Your task to perform on an android device: see creations saved in the google photos Image 0: 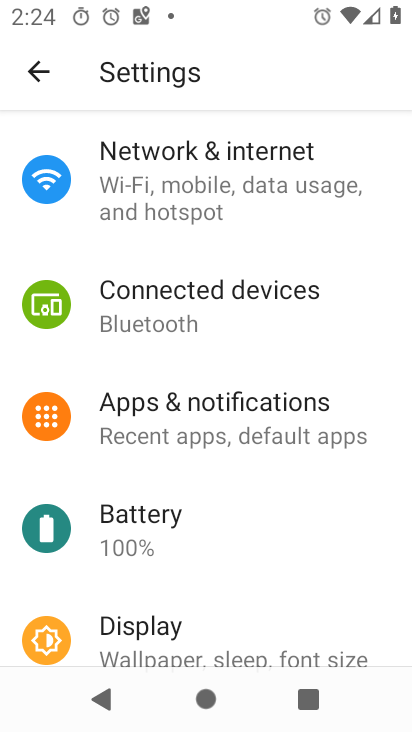
Step 0: press home button
Your task to perform on an android device: see creations saved in the google photos Image 1: 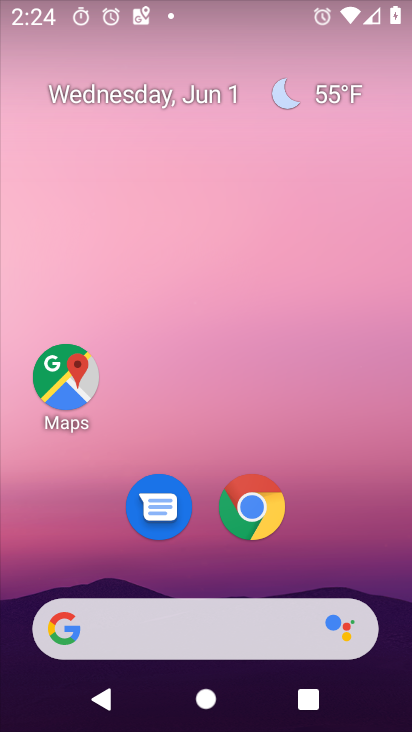
Step 1: drag from (336, 590) to (375, 4)
Your task to perform on an android device: see creations saved in the google photos Image 2: 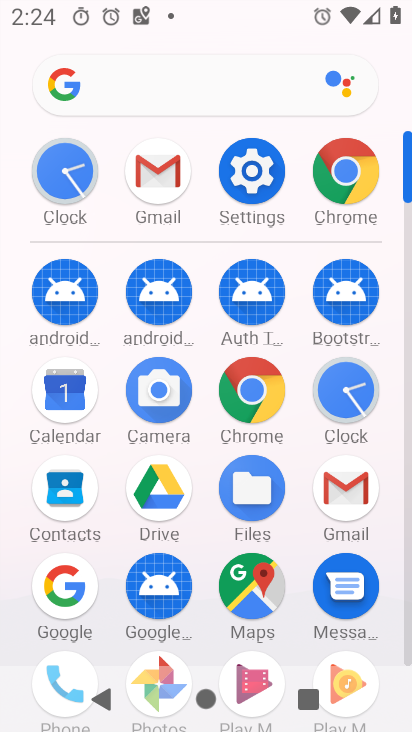
Step 2: click (405, 548)
Your task to perform on an android device: see creations saved in the google photos Image 3: 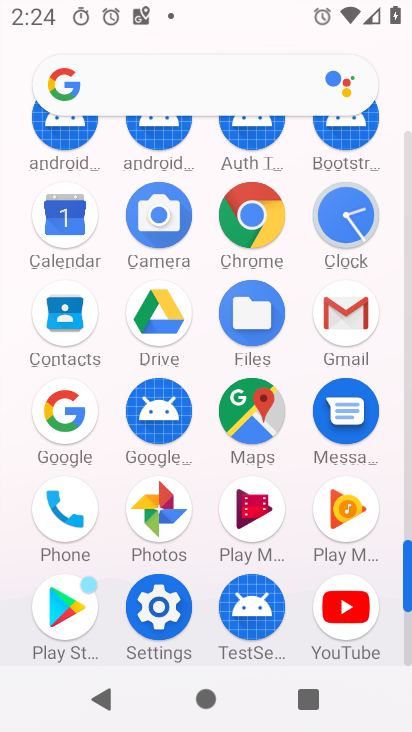
Step 3: click (155, 515)
Your task to perform on an android device: see creations saved in the google photos Image 4: 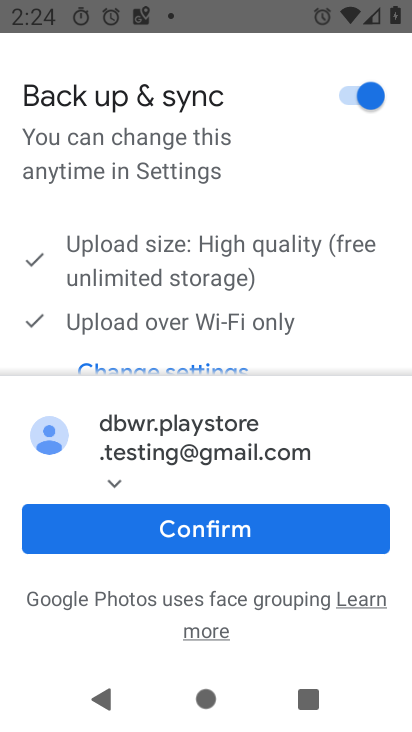
Step 4: click (187, 525)
Your task to perform on an android device: see creations saved in the google photos Image 5: 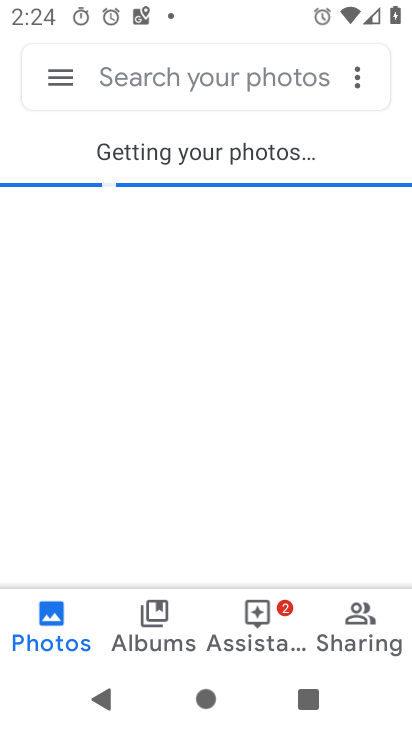
Step 5: click (139, 75)
Your task to perform on an android device: see creations saved in the google photos Image 6: 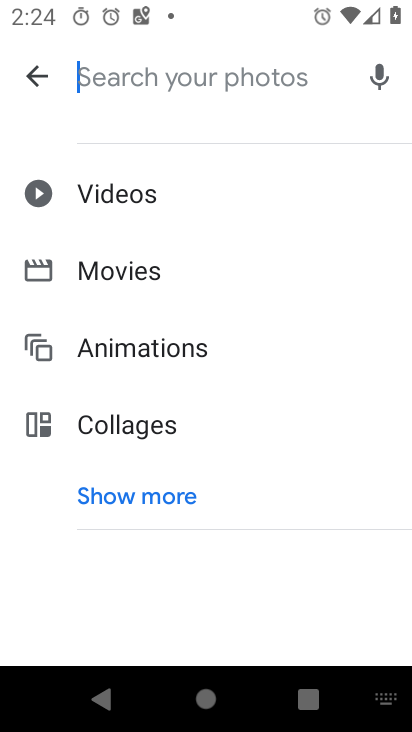
Step 6: click (138, 501)
Your task to perform on an android device: see creations saved in the google photos Image 7: 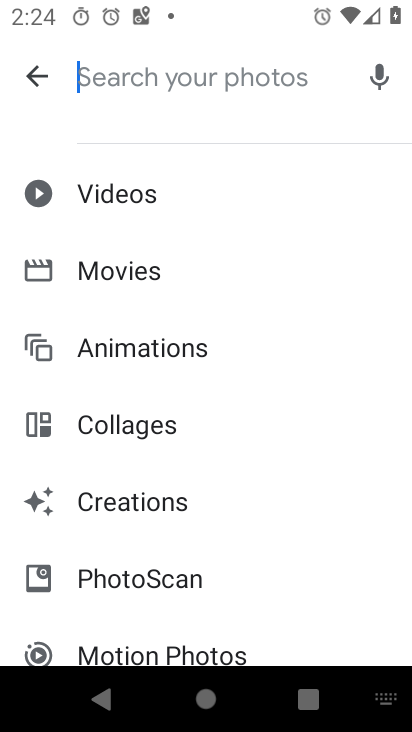
Step 7: click (138, 501)
Your task to perform on an android device: see creations saved in the google photos Image 8: 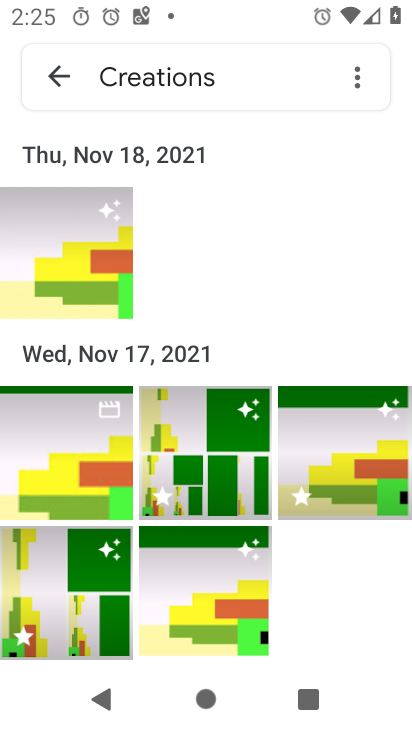
Step 8: task complete